Your task to perform on an android device: create a new album in the google photos Image 0: 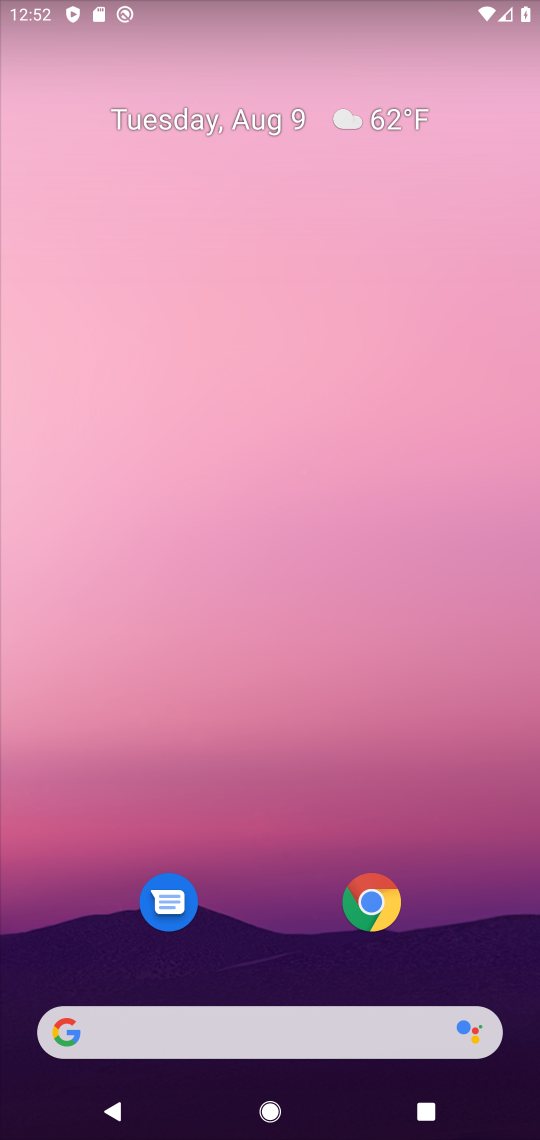
Step 0: press home button
Your task to perform on an android device: create a new album in the google photos Image 1: 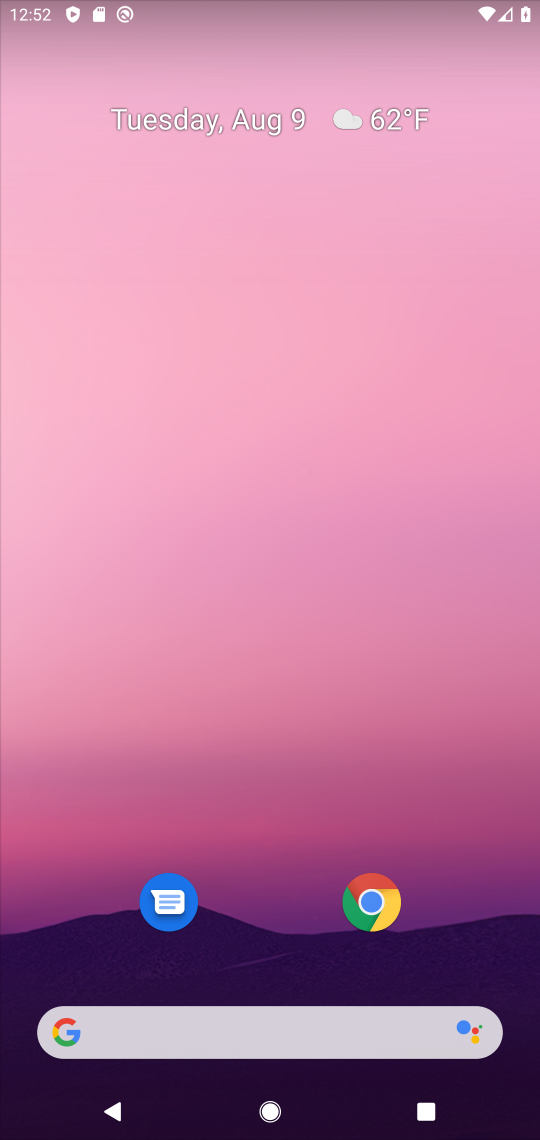
Step 1: drag from (233, 1011) to (291, 417)
Your task to perform on an android device: create a new album in the google photos Image 2: 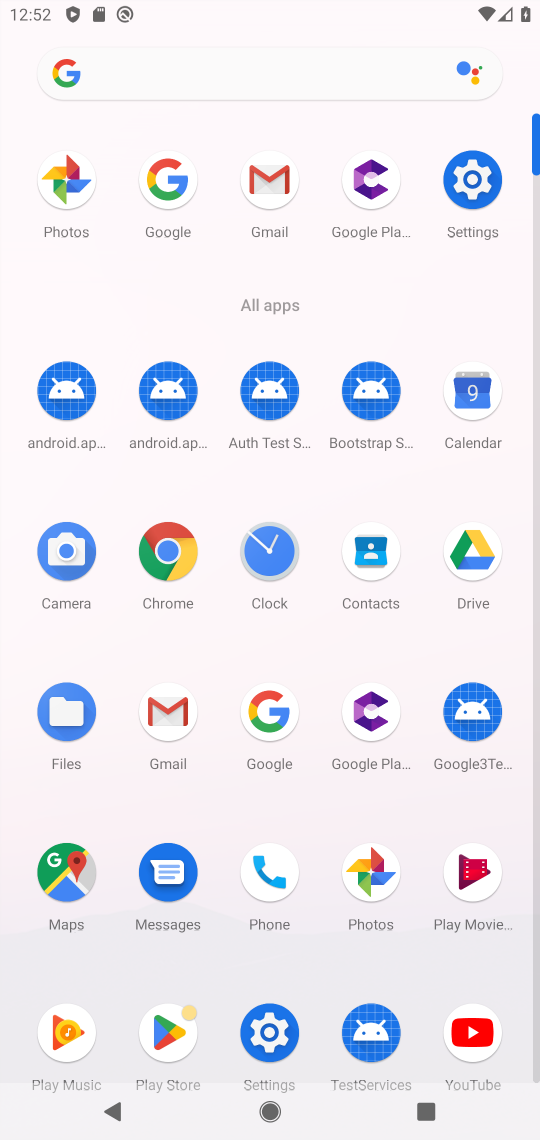
Step 2: click (374, 875)
Your task to perform on an android device: create a new album in the google photos Image 3: 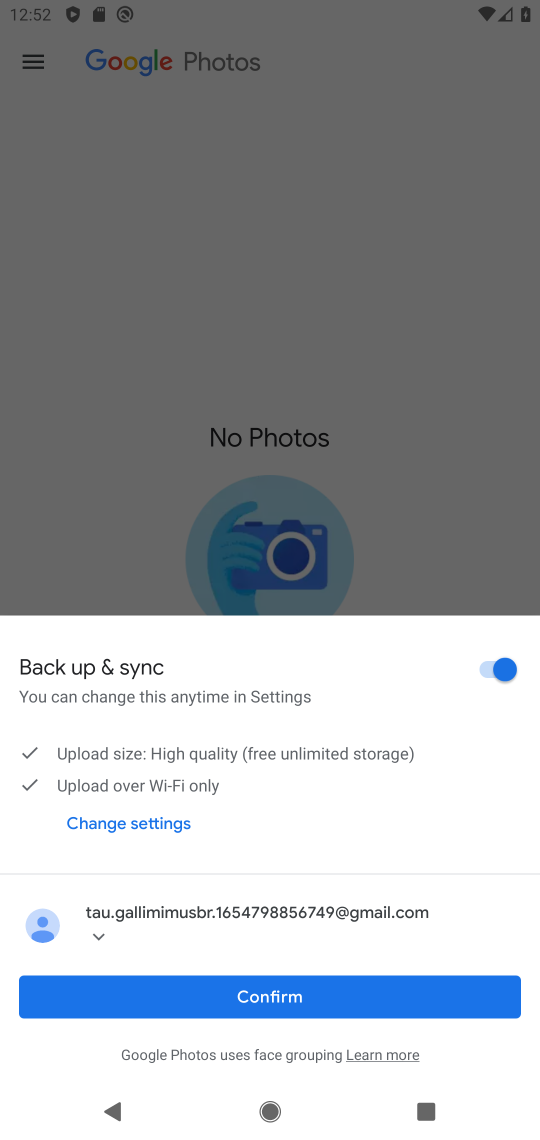
Step 3: click (271, 1000)
Your task to perform on an android device: create a new album in the google photos Image 4: 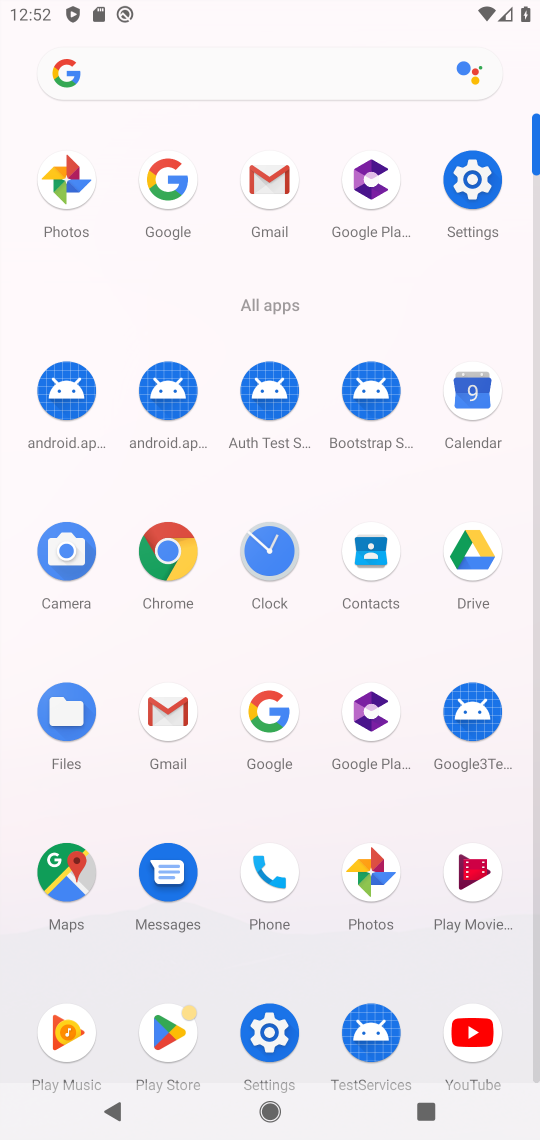
Step 4: click (376, 872)
Your task to perform on an android device: create a new album in the google photos Image 5: 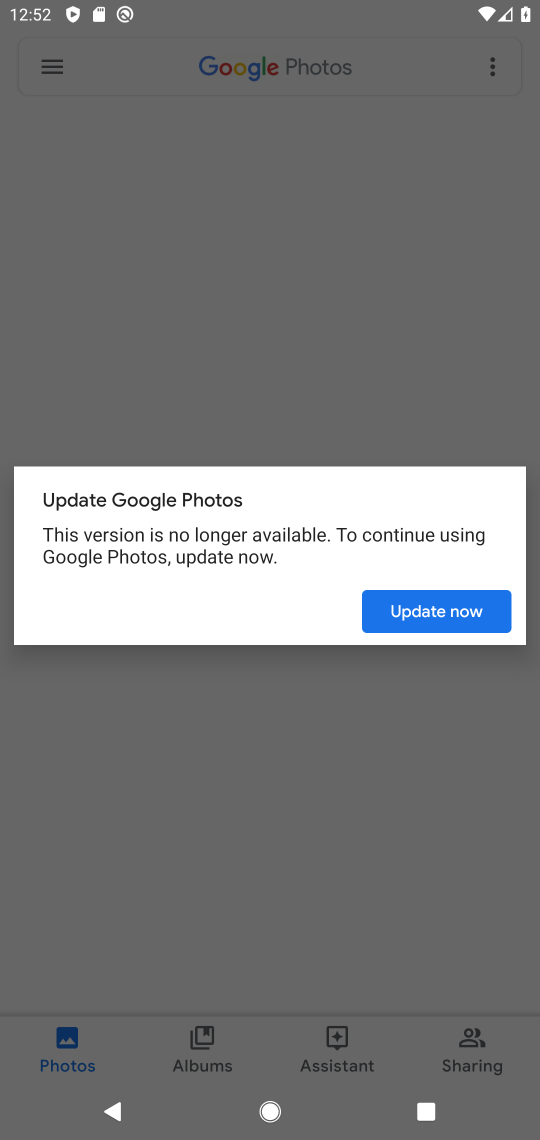
Step 5: click (398, 613)
Your task to perform on an android device: create a new album in the google photos Image 6: 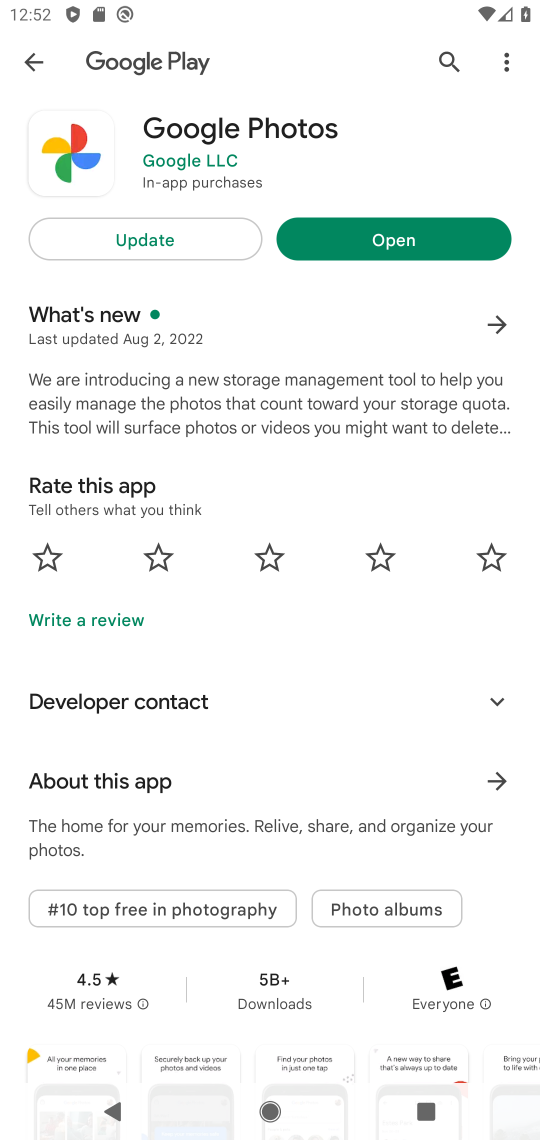
Step 6: click (166, 231)
Your task to perform on an android device: create a new album in the google photos Image 7: 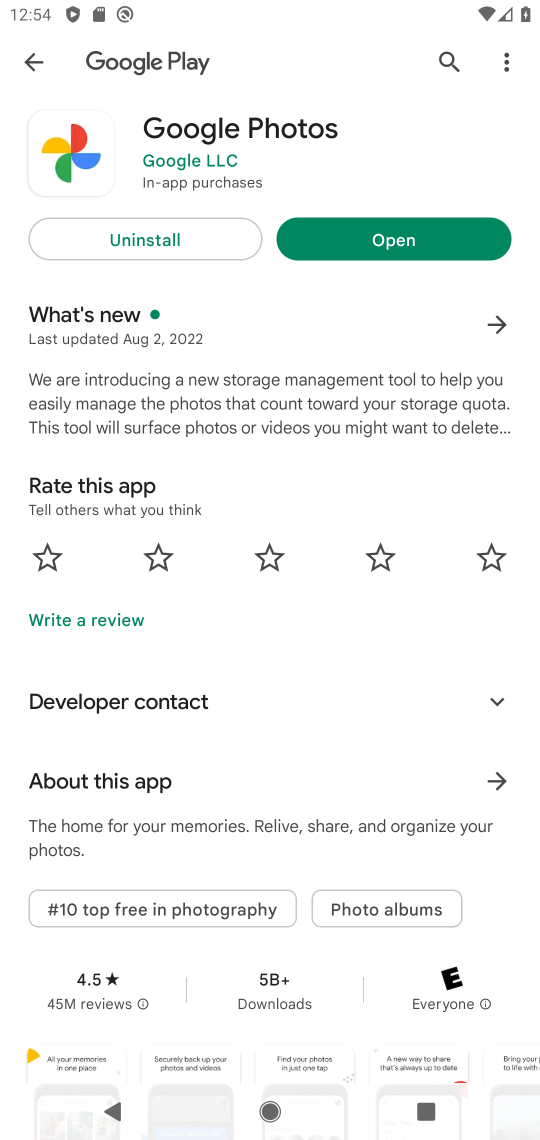
Step 7: click (390, 233)
Your task to perform on an android device: create a new album in the google photos Image 8: 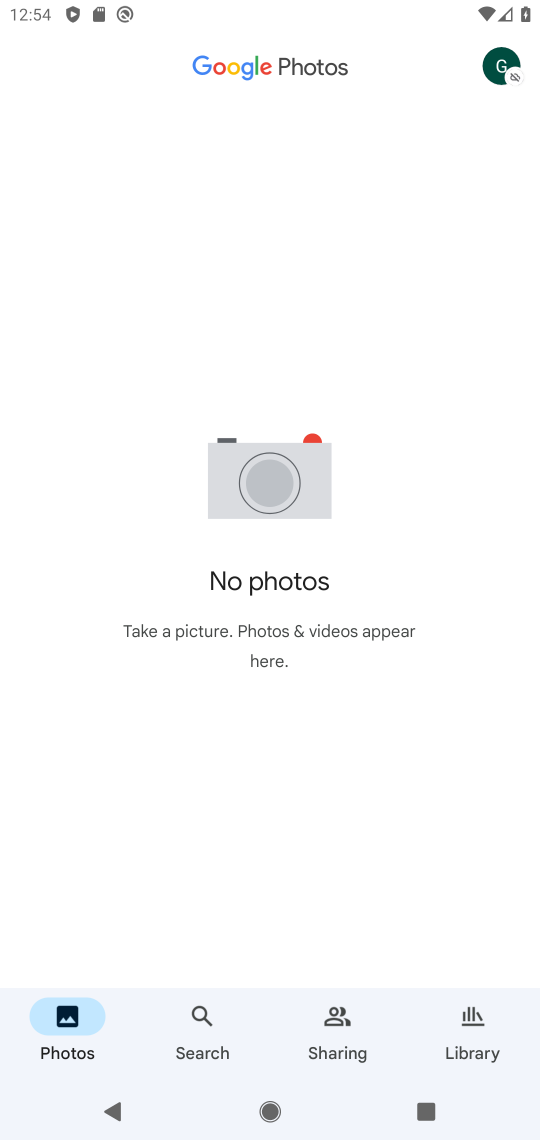
Step 8: task complete